Your task to perform on an android device: turn off smart reply in the gmail app Image 0: 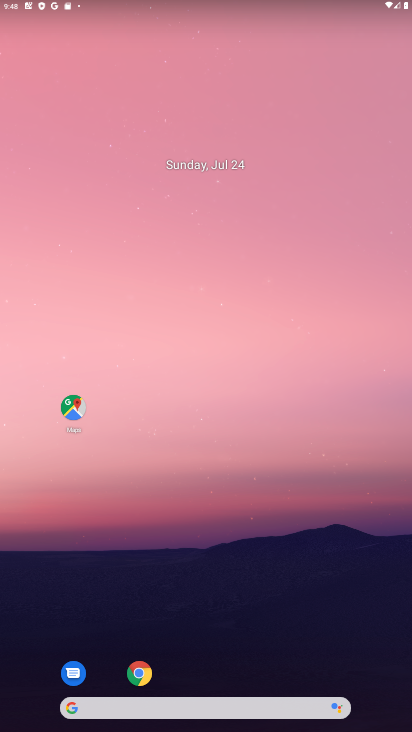
Step 0: drag from (27, 680) to (157, 243)
Your task to perform on an android device: turn off smart reply in the gmail app Image 1: 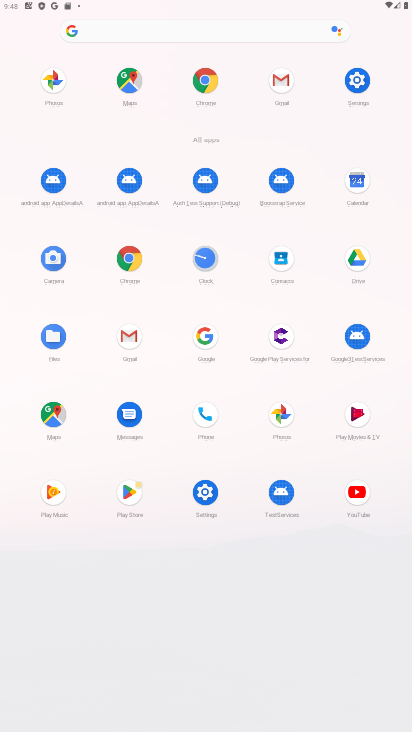
Step 1: click (131, 343)
Your task to perform on an android device: turn off smart reply in the gmail app Image 2: 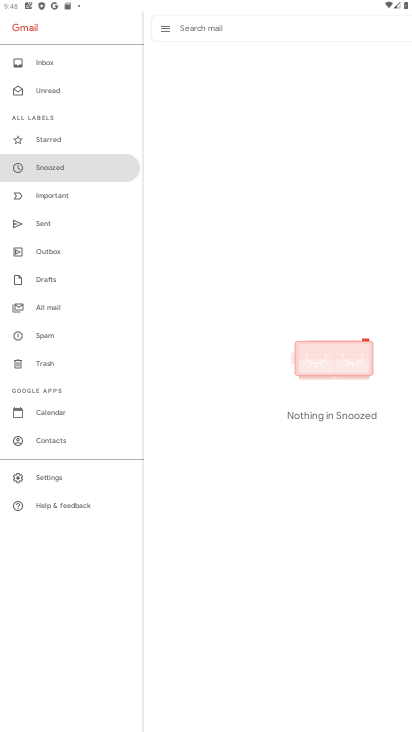
Step 2: click (67, 477)
Your task to perform on an android device: turn off smart reply in the gmail app Image 3: 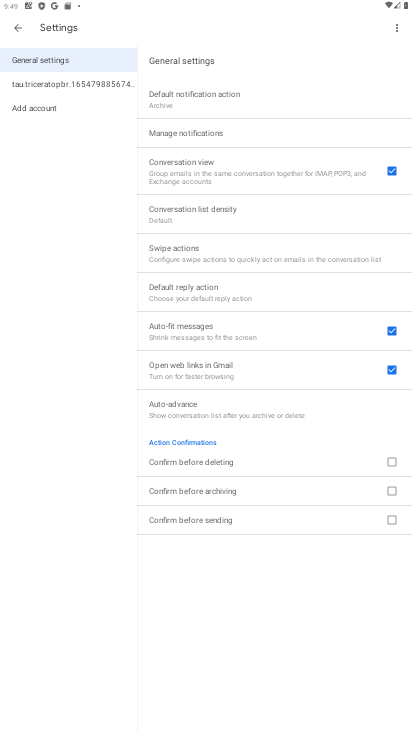
Step 3: click (47, 79)
Your task to perform on an android device: turn off smart reply in the gmail app Image 4: 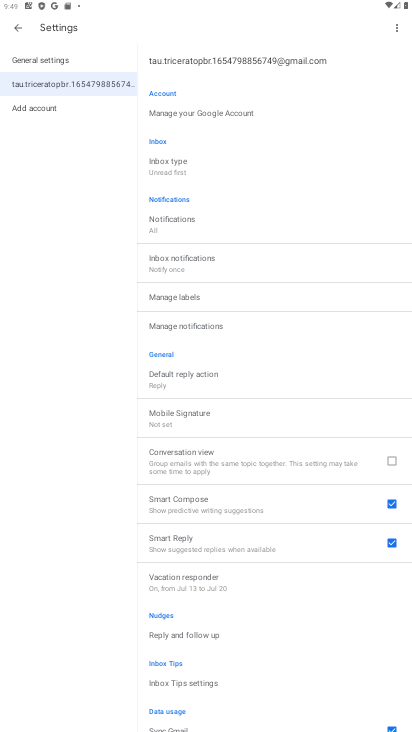
Step 4: click (395, 542)
Your task to perform on an android device: turn off smart reply in the gmail app Image 5: 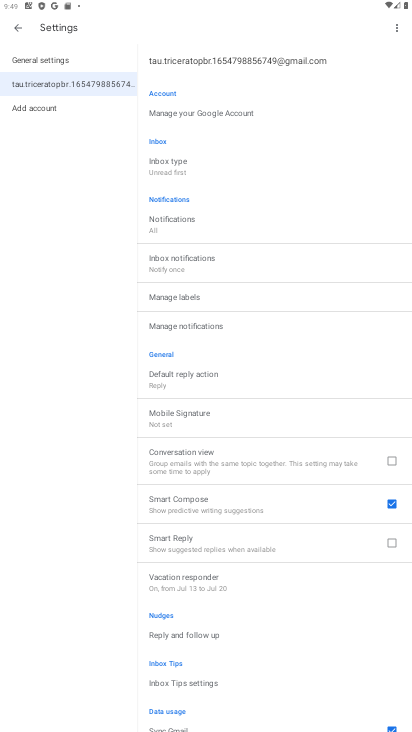
Step 5: task complete